Your task to perform on an android device: Show me popular videos on Youtube Image 0: 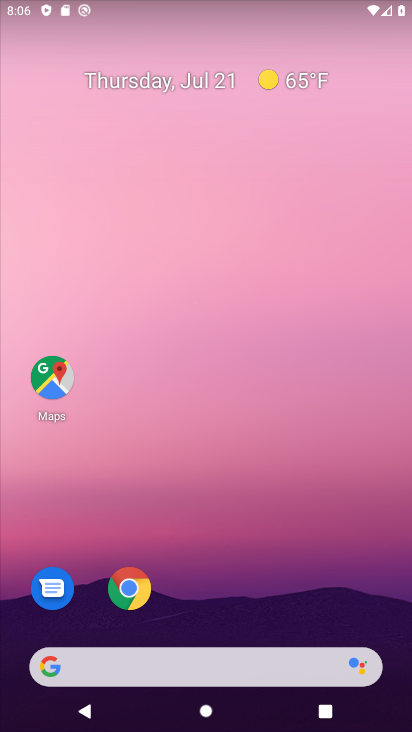
Step 0: drag from (221, 646) to (223, 1)
Your task to perform on an android device: Show me popular videos on Youtube Image 1: 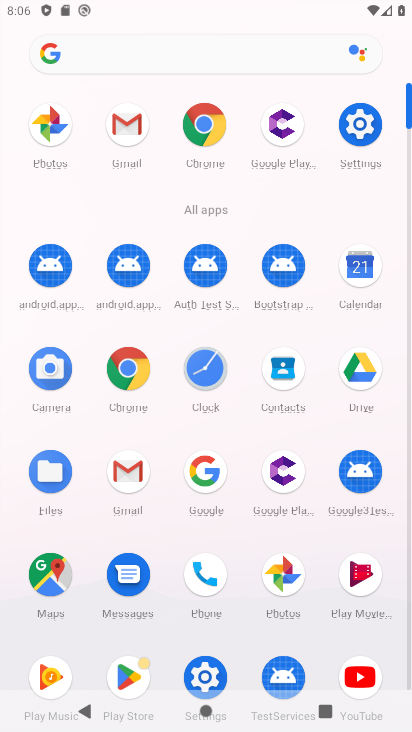
Step 1: click (367, 677)
Your task to perform on an android device: Show me popular videos on Youtube Image 2: 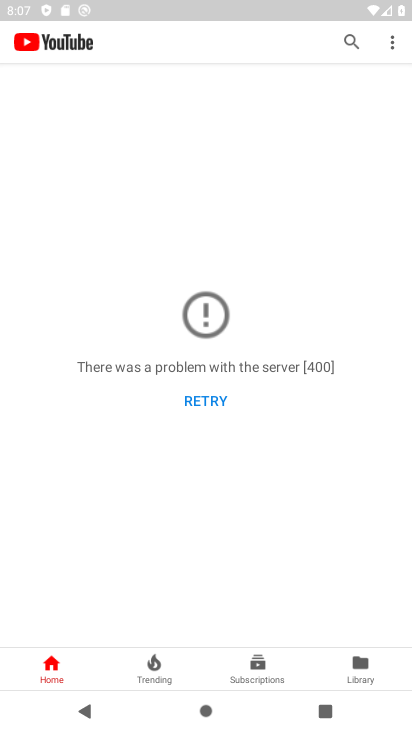
Step 2: click (202, 403)
Your task to perform on an android device: Show me popular videos on Youtube Image 3: 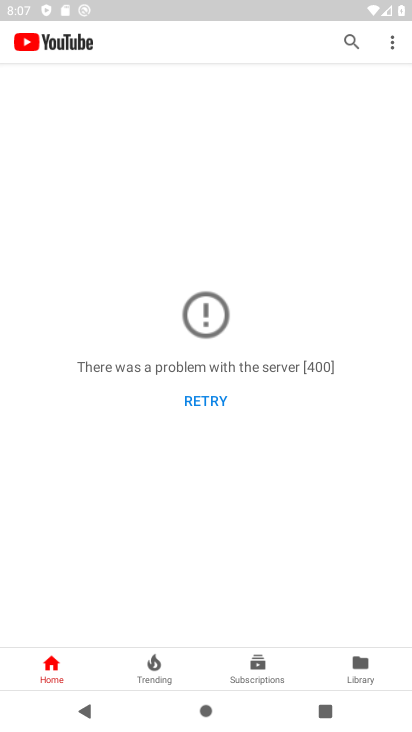
Step 3: task complete